Your task to perform on an android device: turn smart compose on in the gmail app Image 0: 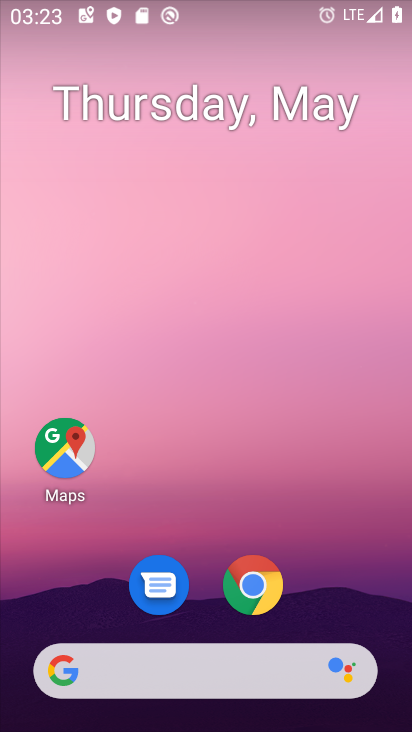
Step 0: drag from (279, 480) to (286, 41)
Your task to perform on an android device: turn smart compose on in the gmail app Image 1: 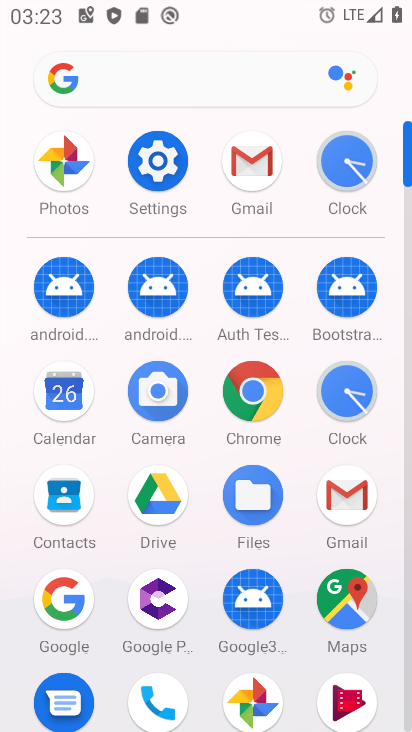
Step 1: click (248, 173)
Your task to perform on an android device: turn smart compose on in the gmail app Image 2: 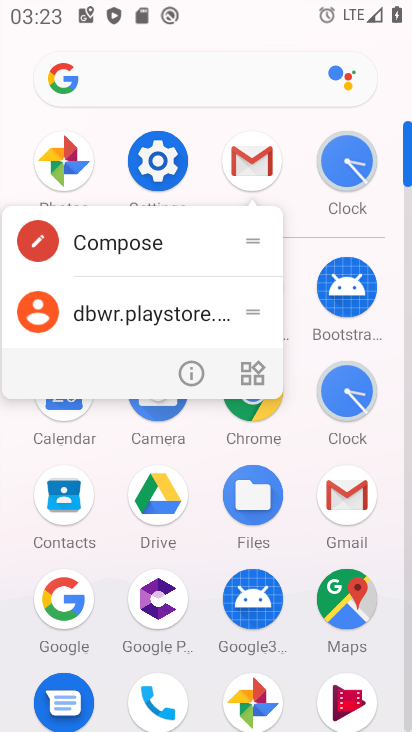
Step 2: click (249, 157)
Your task to perform on an android device: turn smart compose on in the gmail app Image 3: 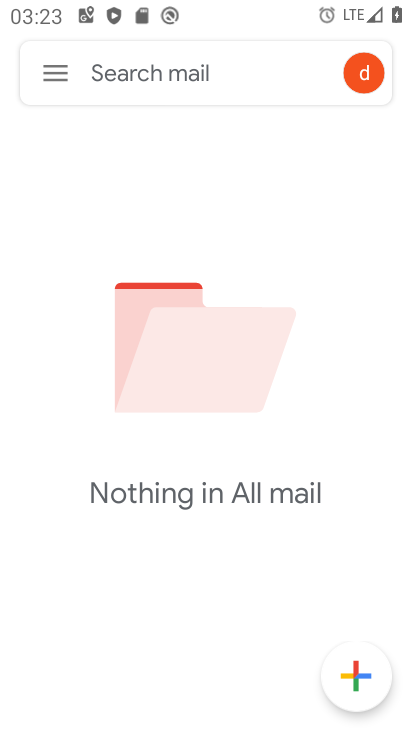
Step 3: click (61, 71)
Your task to perform on an android device: turn smart compose on in the gmail app Image 4: 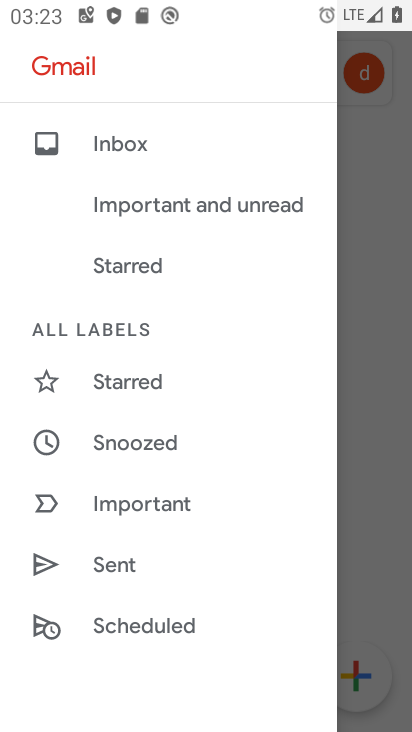
Step 4: drag from (192, 535) to (255, 1)
Your task to perform on an android device: turn smart compose on in the gmail app Image 5: 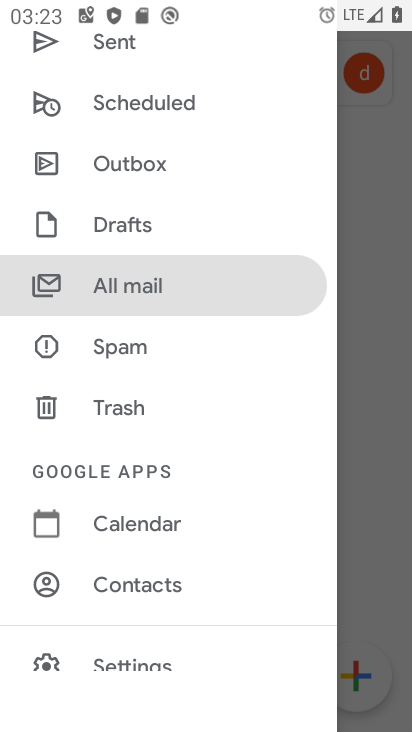
Step 5: drag from (222, 275) to (236, 75)
Your task to perform on an android device: turn smart compose on in the gmail app Image 6: 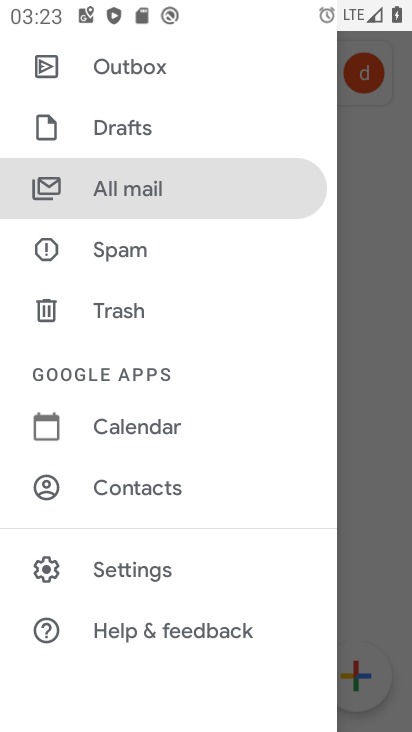
Step 6: click (157, 565)
Your task to perform on an android device: turn smart compose on in the gmail app Image 7: 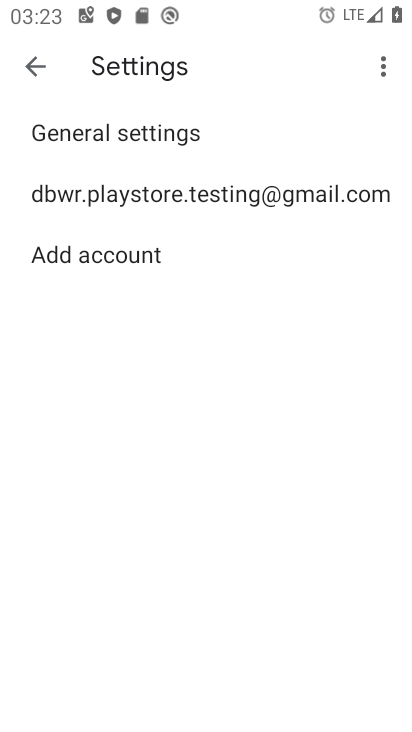
Step 7: click (272, 189)
Your task to perform on an android device: turn smart compose on in the gmail app Image 8: 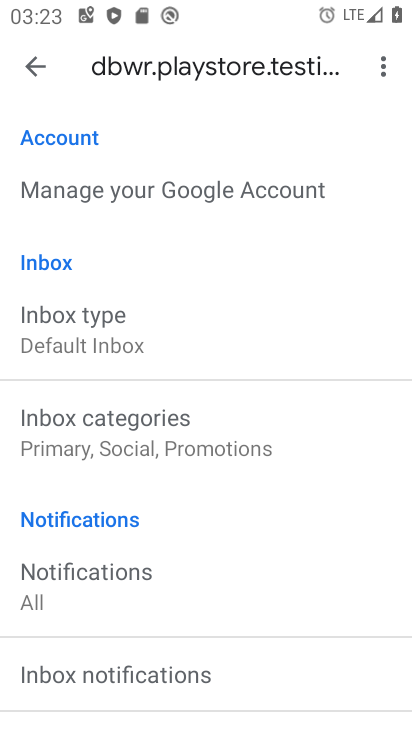
Step 8: task complete